Your task to perform on an android device: Show me productivity apps on the Play Store Image 0: 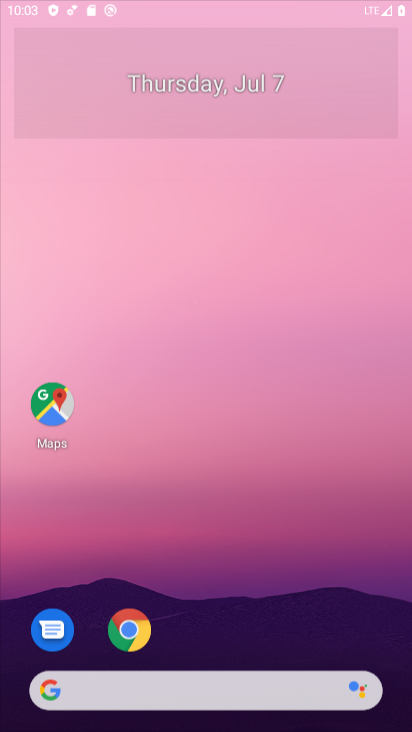
Step 0: press home button
Your task to perform on an android device: Show me productivity apps on the Play Store Image 1: 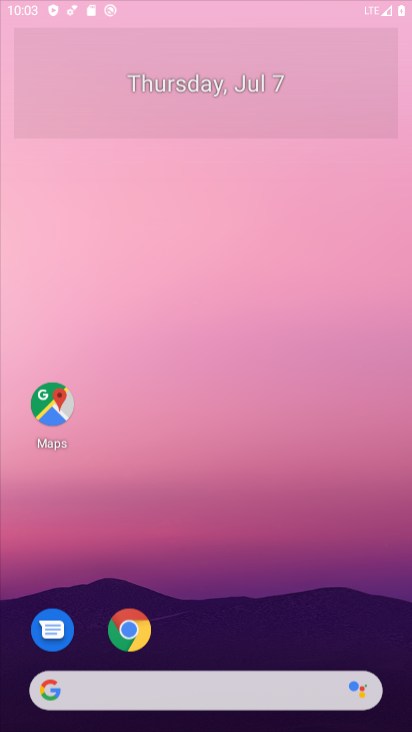
Step 1: click (234, 69)
Your task to perform on an android device: Show me productivity apps on the Play Store Image 2: 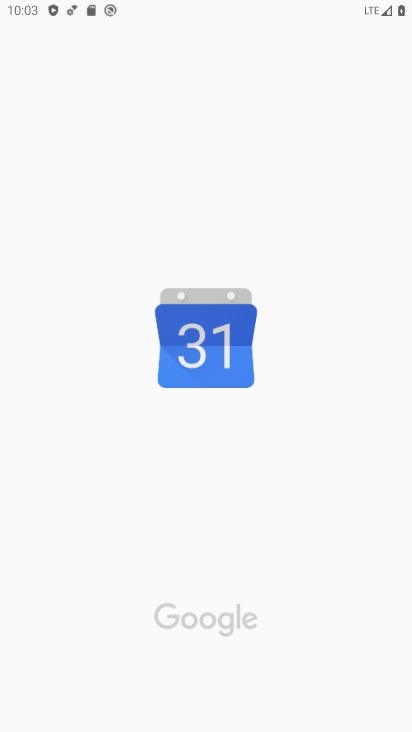
Step 2: press home button
Your task to perform on an android device: Show me productivity apps on the Play Store Image 3: 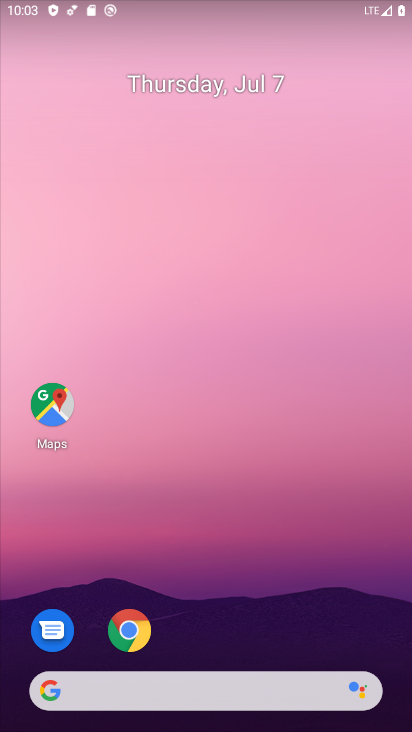
Step 3: drag from (241, 636) to (271, 56)
Your task to perform on an android device: Show me productivity apps on the Play Store Image 4: 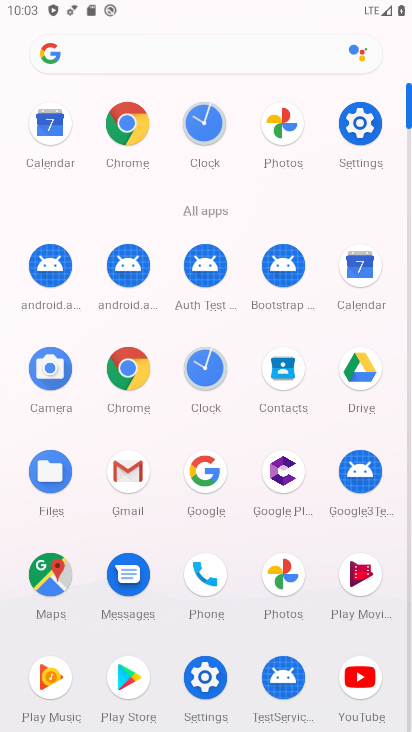
Step 4: click (124, 670)
Your task to perform on an android device: Show me productivity apps on the Play Store Image 5: 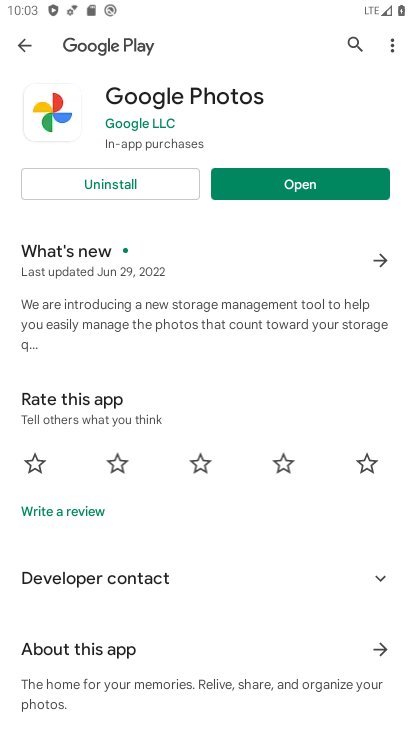
Step 5: click (16, 44)
Your task to perform on an android device: Show me productivity apps on the Play Store Image 6: 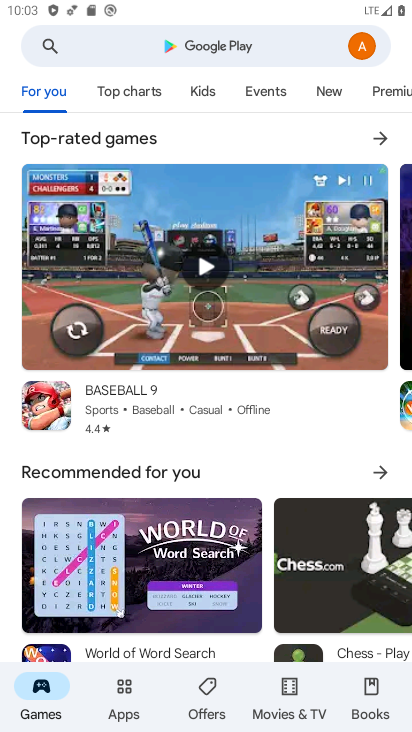
Step 6: click (119, 683)
Your task to perform on an android device: Show me productivity apps on the Play Store Image 7: 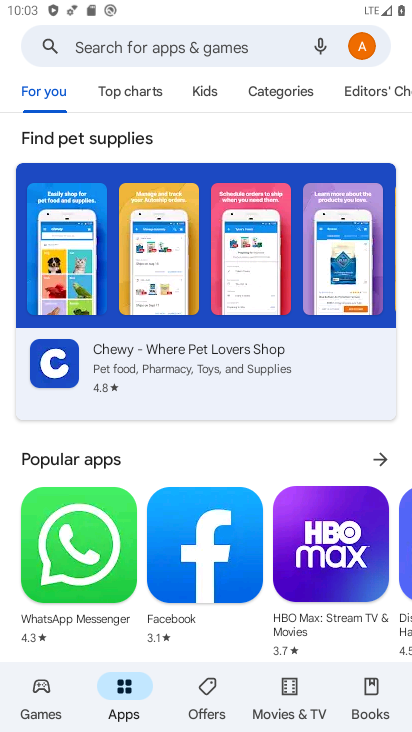
Step 7: click (283, 97)
Your task to perform on an android device: Show me productivity apps on the Play Store Image 8: 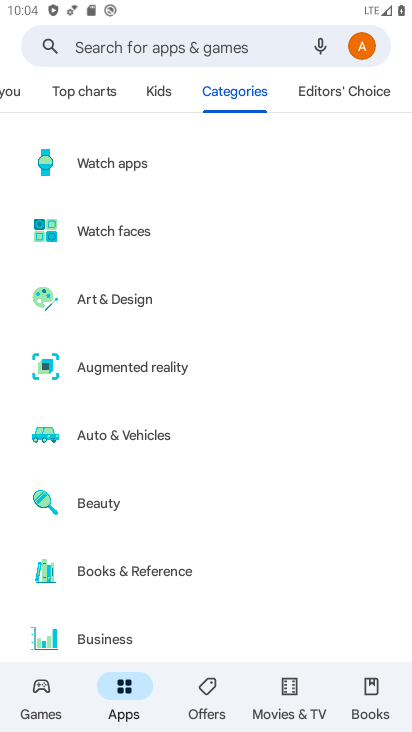
Step 8: drag from (137, 602) to (170, 107)
Your task to perform on an android device: Show me productivity apps on the Play Store Image 9: 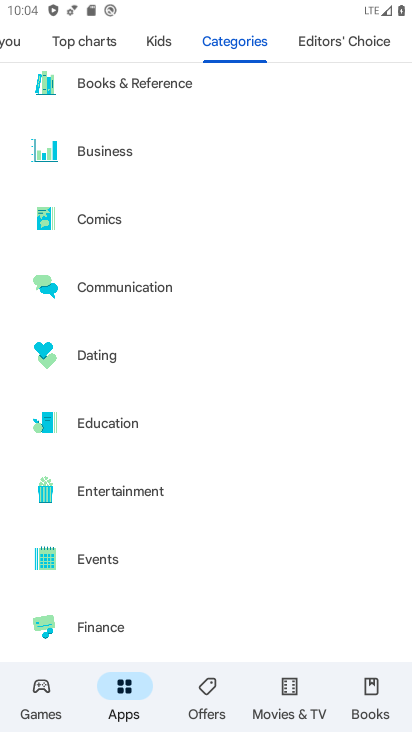
Step 9: drag from (170, 524) to (176, 164)
Your task to perform on an android device: Show me productivity apps on the Play Store Image 10: 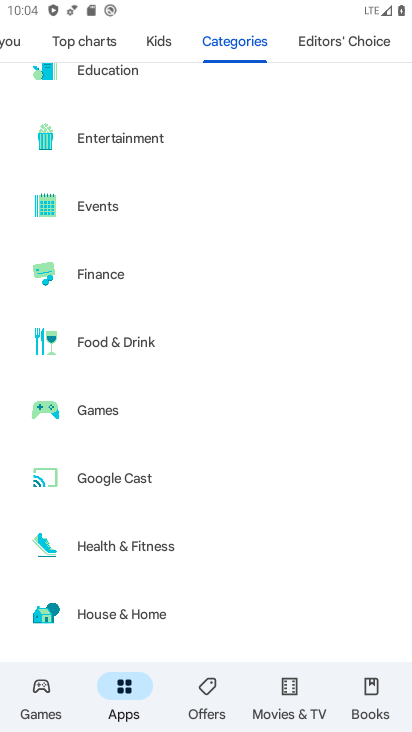
Step 10: drag from (165, 623) to (184, 24)
Your task to perform on an android device: Show me productivity apps on the Play Store Image 11: 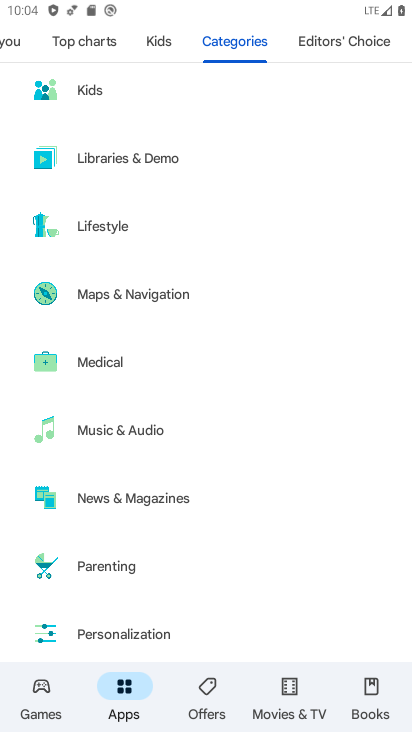
Step 11: drag from (135, 609) to (134, 273)
Your task to perform on an android device: Show me productivity apps on the Play Store Image 12: 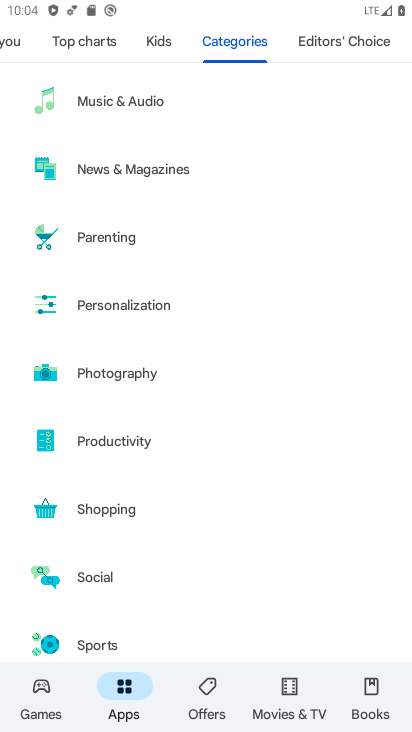
Step 12: click (83, 444)
Your task to perform on an android device: Show me productivity apps on the Play Store Image 13: 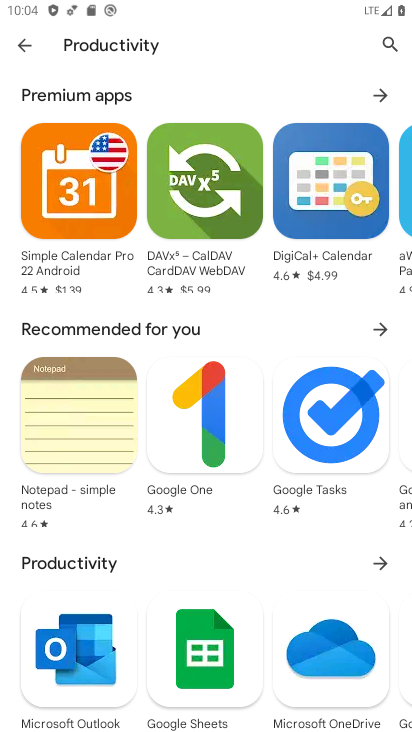
Step 13: task complete